Your task to perform on an android device: see tabs open on other devices in the chrome app Image 0: 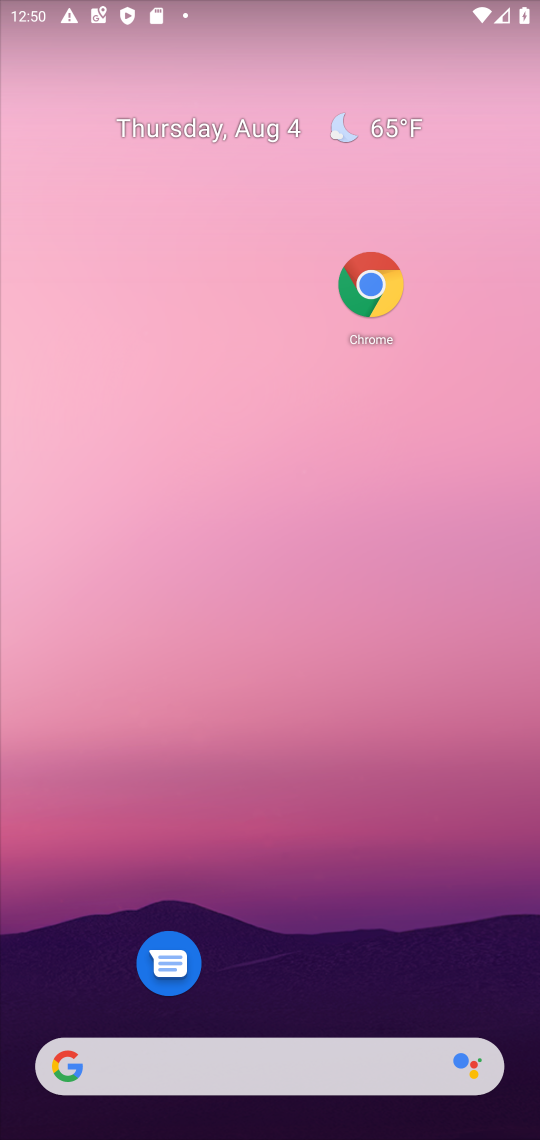
Step 0: drag from (303, 1033) to (337, 457)
Your task to perform on an android device: see tabs open on other devices in the chrome app Image 1: 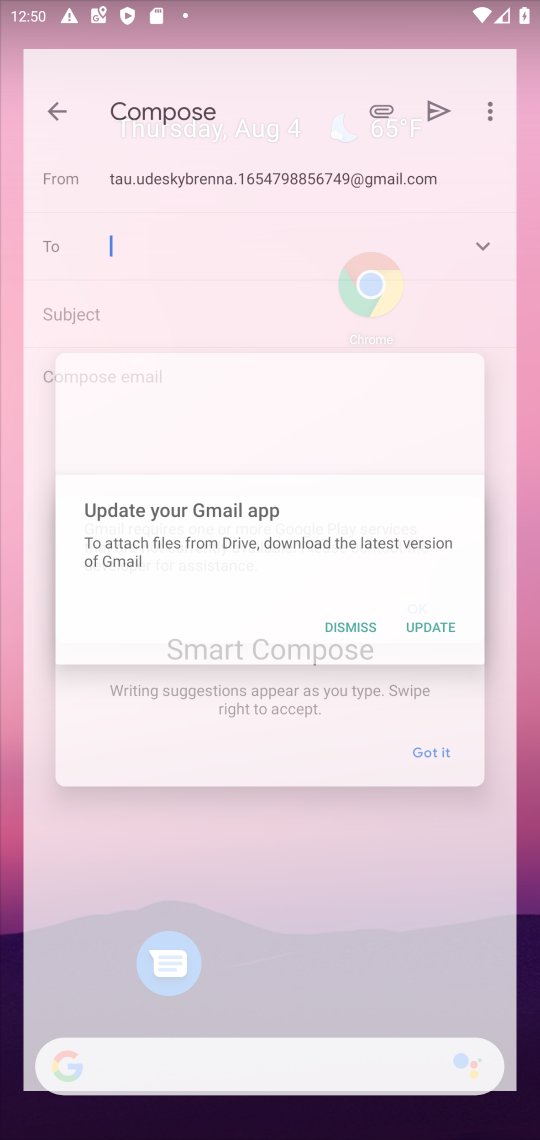
Step 1: drag from (266, 1004) to (344, 423)
Your task to perform on an android device: see tabs open on other devices in the chrome app Image 2: 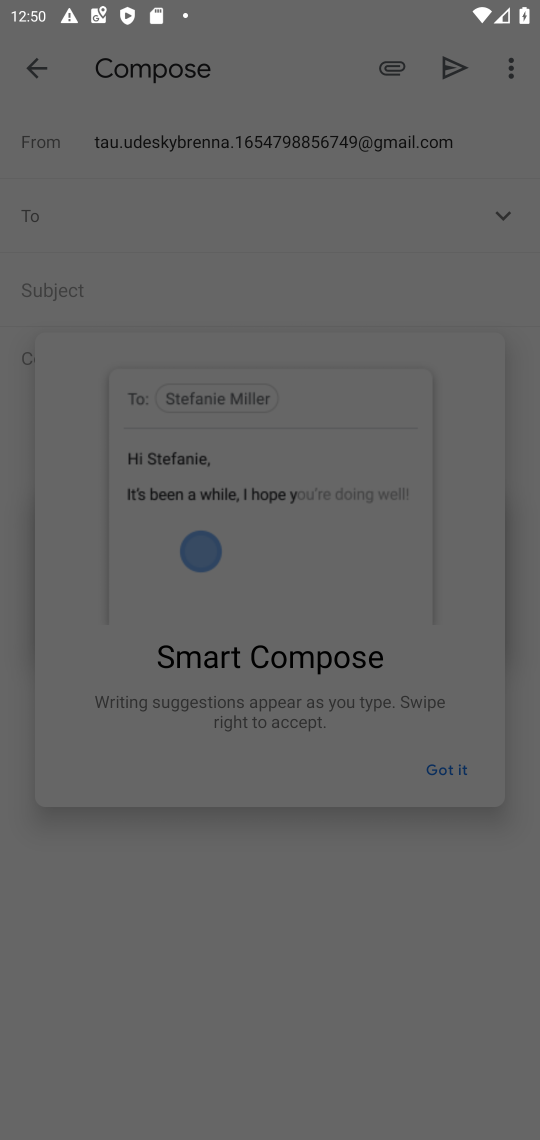
Step 2: press home button
Your task to perform on an android device: see tabs open on other devices in the chrome app Image 3: 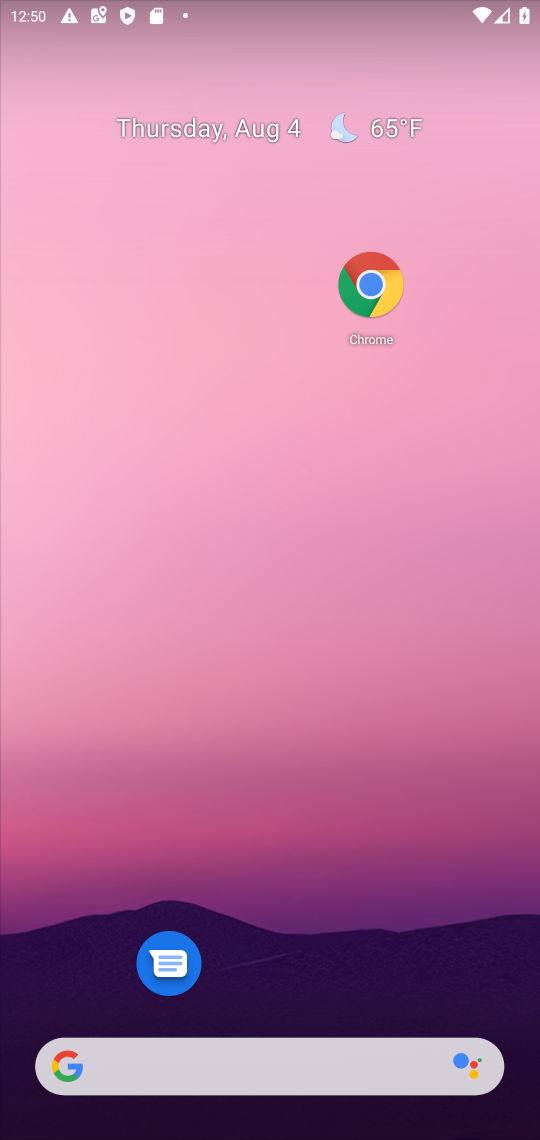
Step 3: click (373, 292)
Your task to perform on an android device: see tabs open on other devices in the chrome app Image 4: 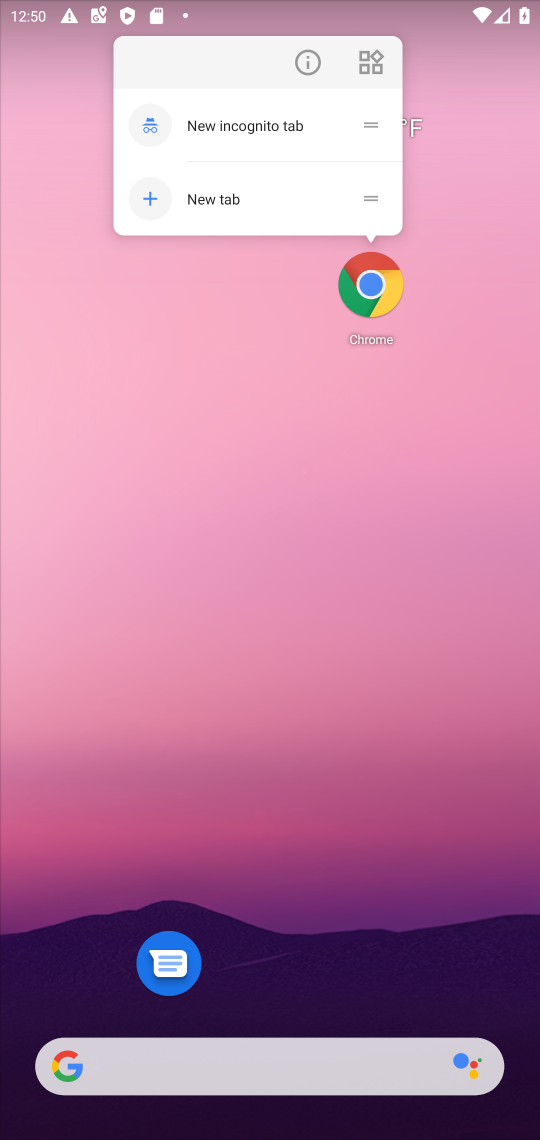
Step 4: click (385, 314)
Your task to perform on an android device: see tabs open on other devices in the chrome app Image 5: 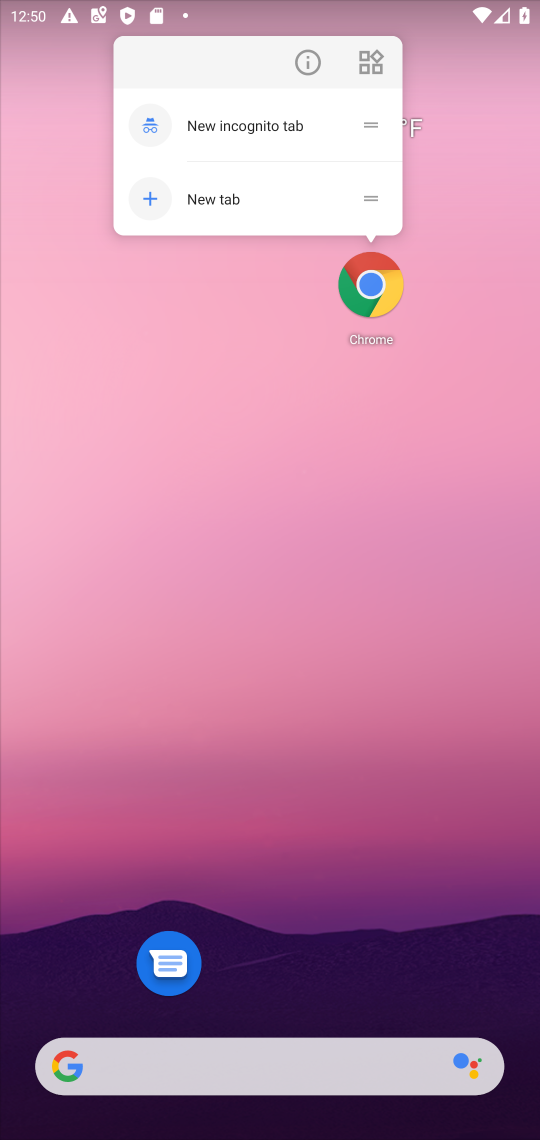
Step 5: click (385, 314)
Your task to perform on an android device: see tabs open on other devices in the chrome app Image 6: 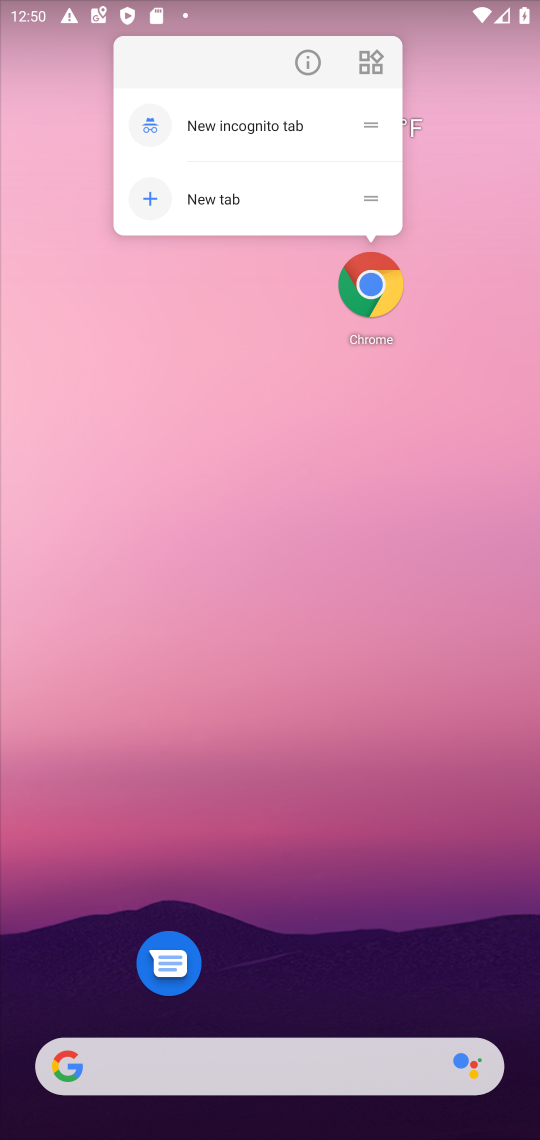
Step 6: click (309, 939)
Your task to perform on an android device: see tabs open on other devices in the chrome app Image 7: 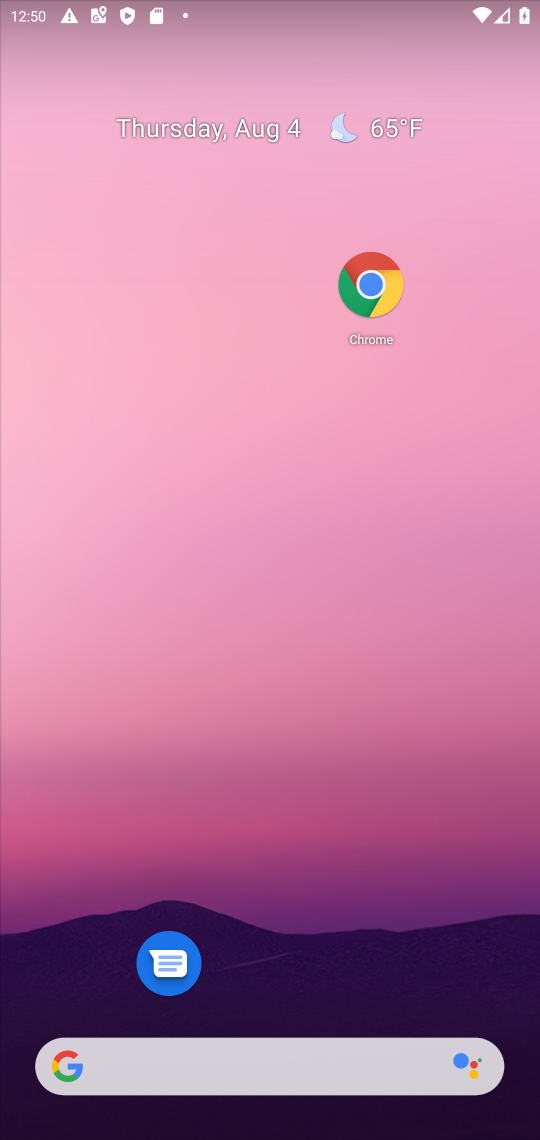
Step 7: drag from (273, 967) to (287, 431)
Your task to perform on an android device: see tabs open on other devices in the chrome app Image 8: 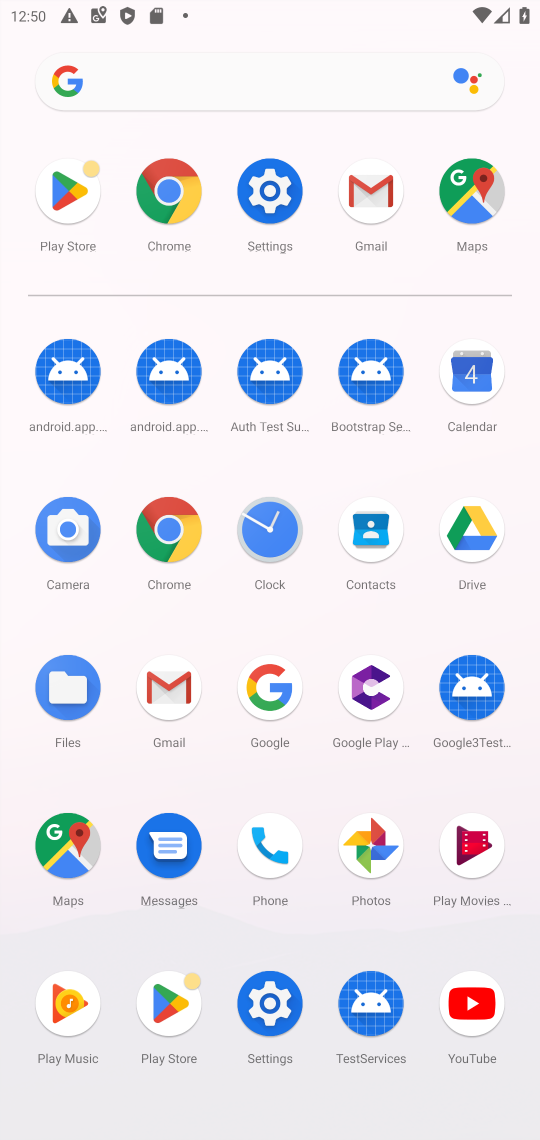
Step 8: click (187, 552)
Your task to perform on an android device: see tabs open on other devices in the chrome app Image 9: 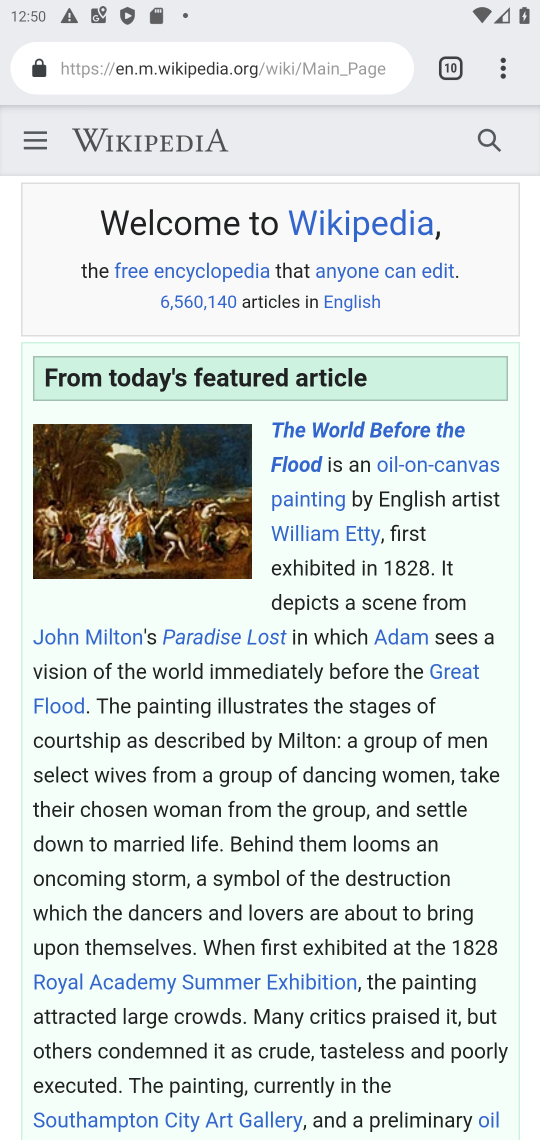
Step 9: click (501, 76)
Your task to perform on an android device: see tabs open on other devices in the chrome app Image 10: 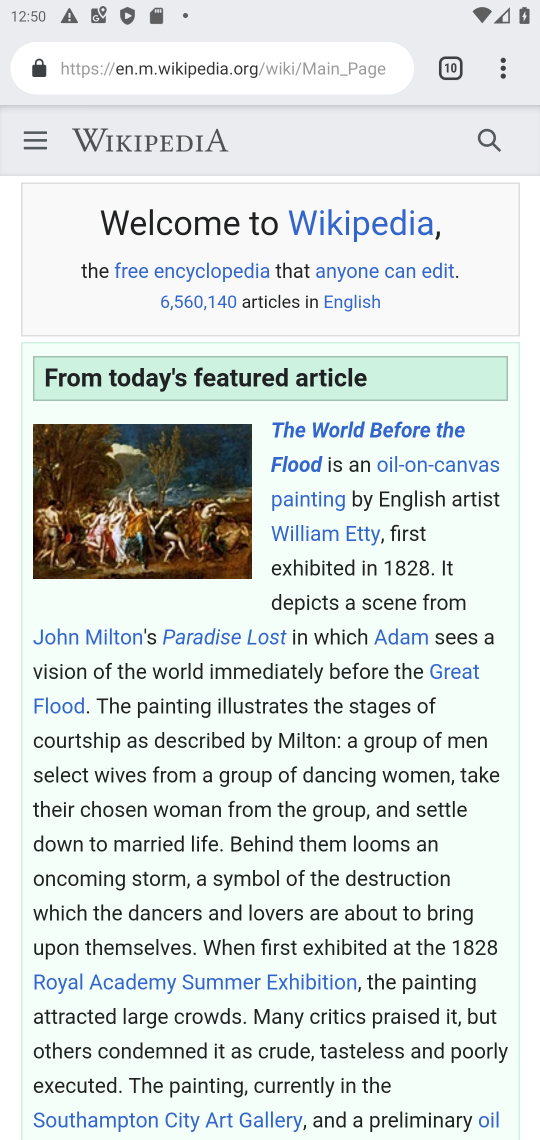
Step 10: click (519, 68)
Your task to perform on an android device: see tabs open on other devices in the chrome app Image 11: 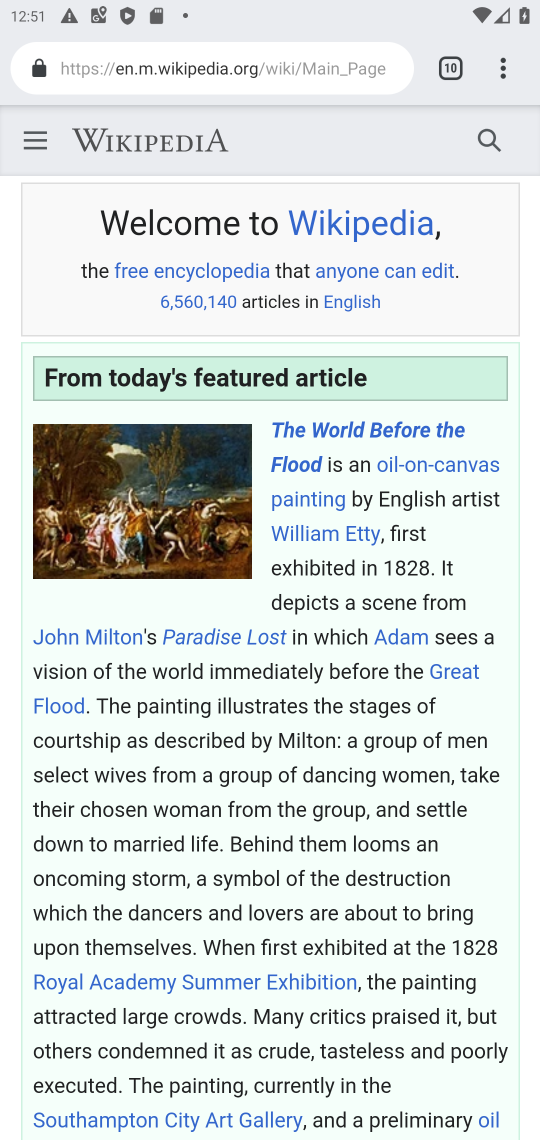
Step 11: click (519, 68)
Your task to perform on an android device: see tabs open on other devices in the chrome app Image 12: 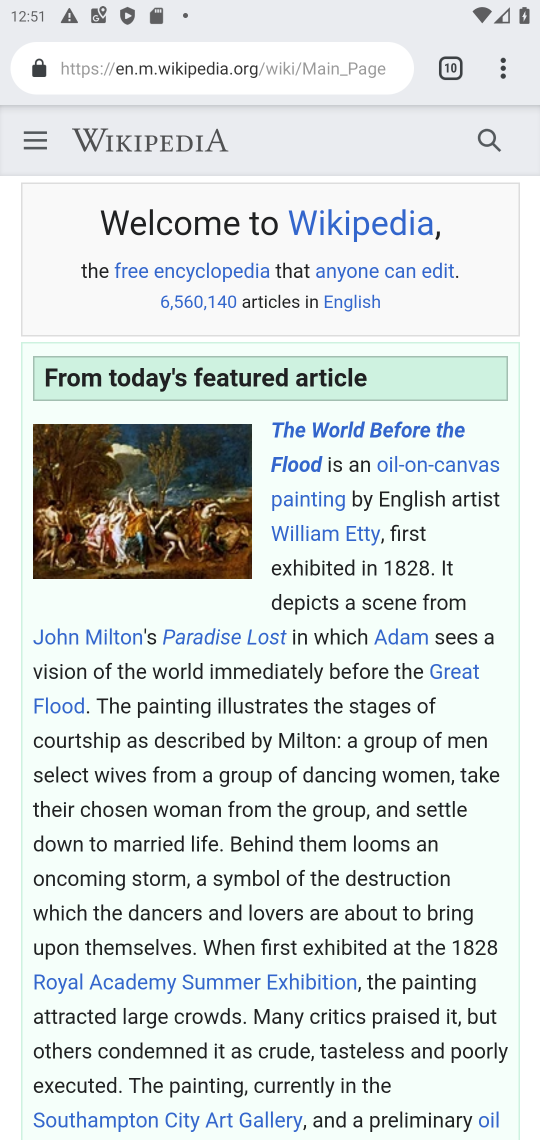
Step 12: click (519, 68)
Your task to perform on an android device: see tabs open on other devices in the chrome app Image 13: 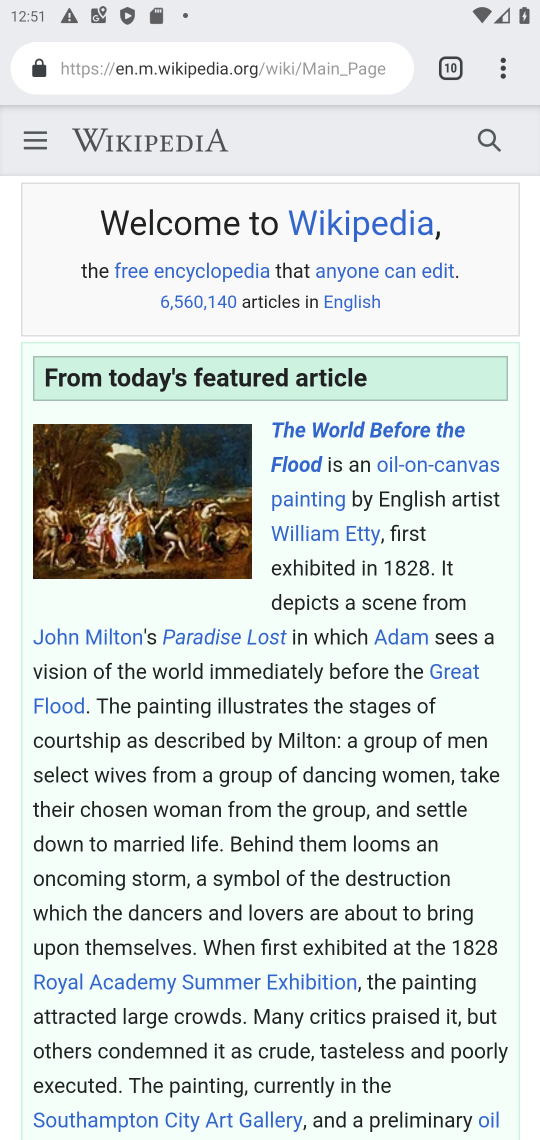
Step 13: click (513, 68)
Your task to perform on an android device: see tabs open on other devices in the chrome app Image 14: 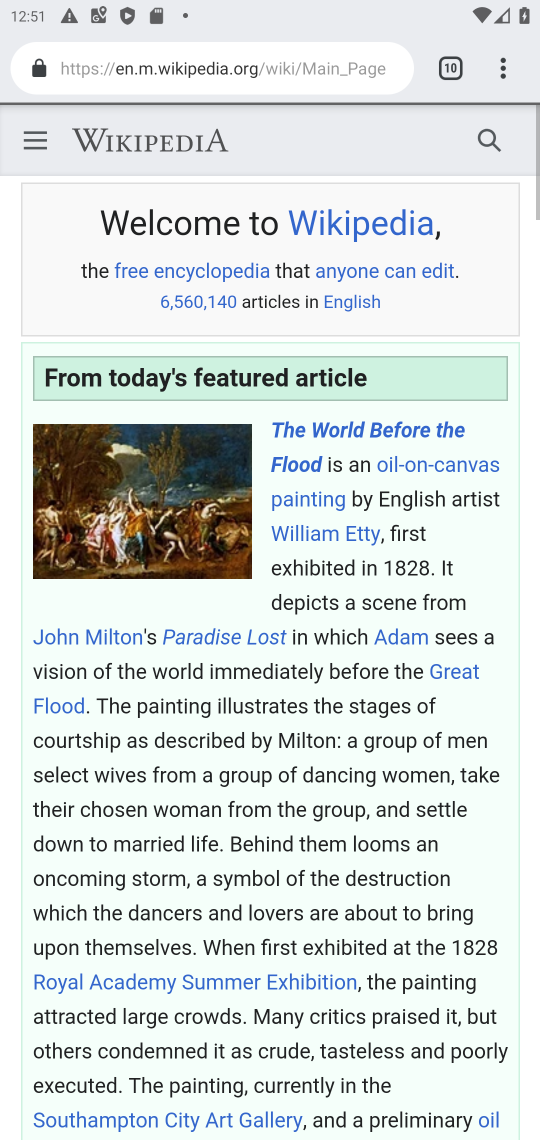
Step 14: click (513, 68)
Your task to perform on an android device: see tabs open on other devices in the chrome app Image 15: 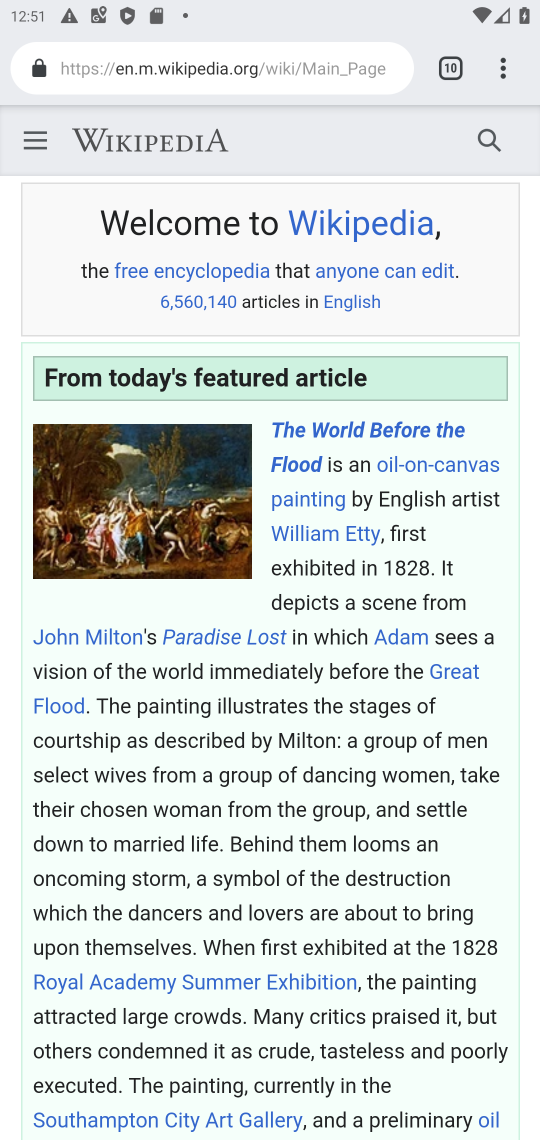
Step 15: click (510, 68)
Your task to perform on an android device: see tabs open on other devices in the chrome app Image 16: 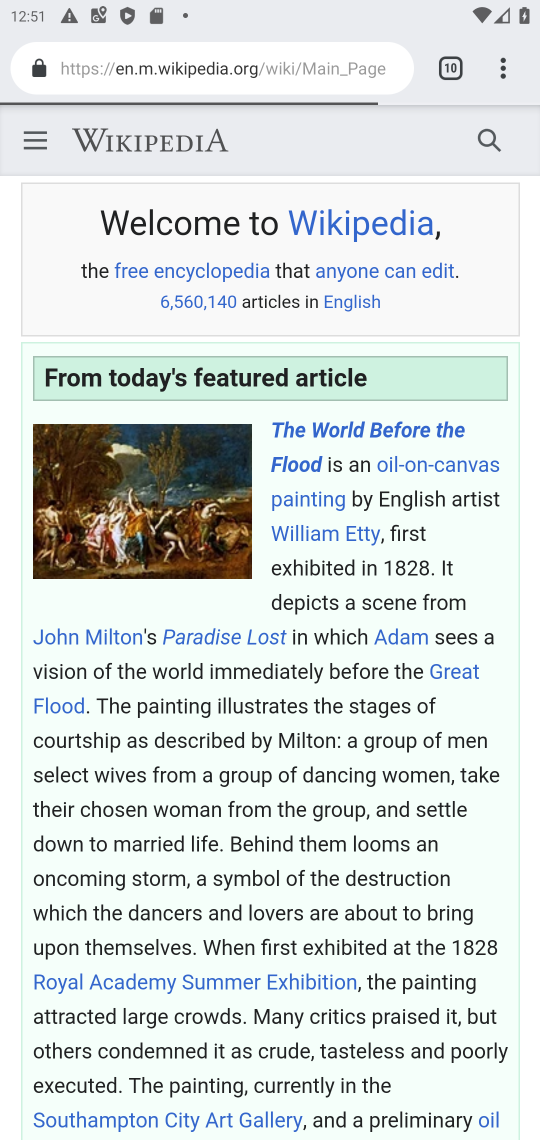
Step 16: click (510, 68)
Your task to perform on an android device: see tabs open on other devices in the chrome app Image 17: 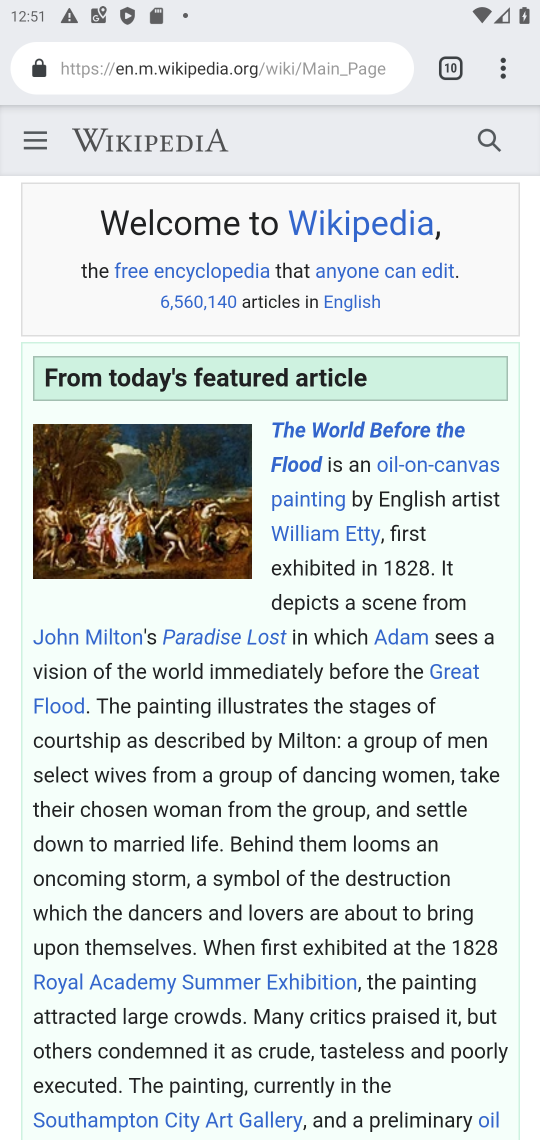
Step 17: click (489, 68)
Your task to perform on an android device: see tabs open on other devices in the chrome app Image 18: 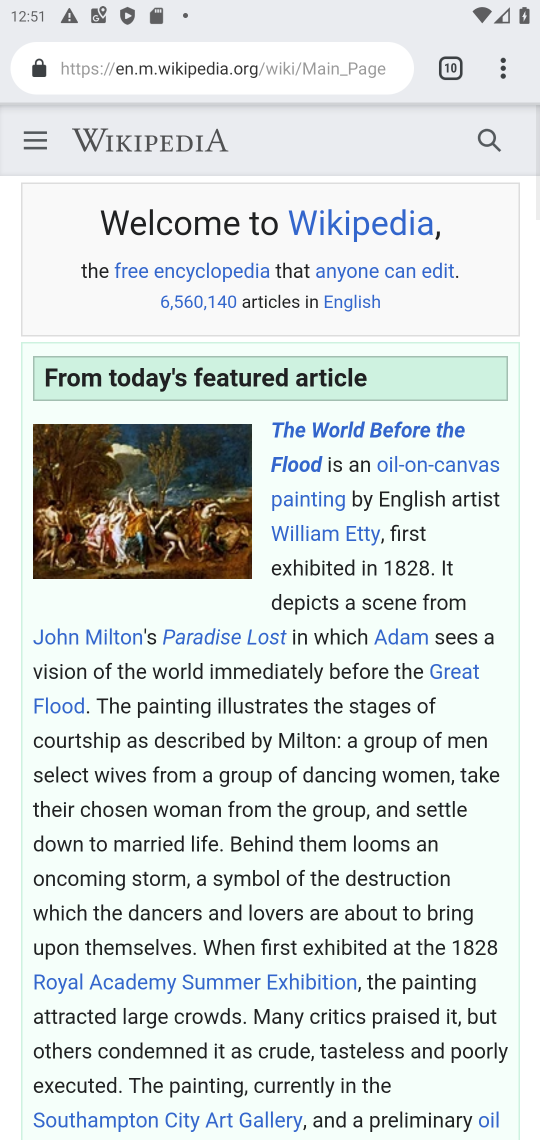
Step 18: click (486, 71)
Your task to perform on an android device: see tabs open on other devices in the chrome app Image 19: 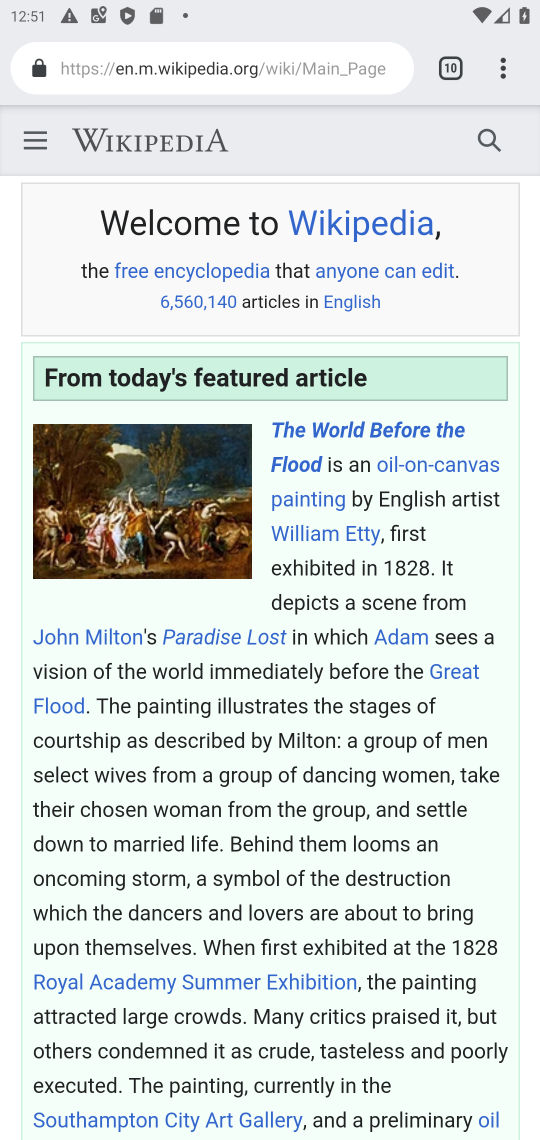
Step 19: click (506, 80)
Your task to perform on an android device: see tabs open on other devices in the chrome app Image 20: 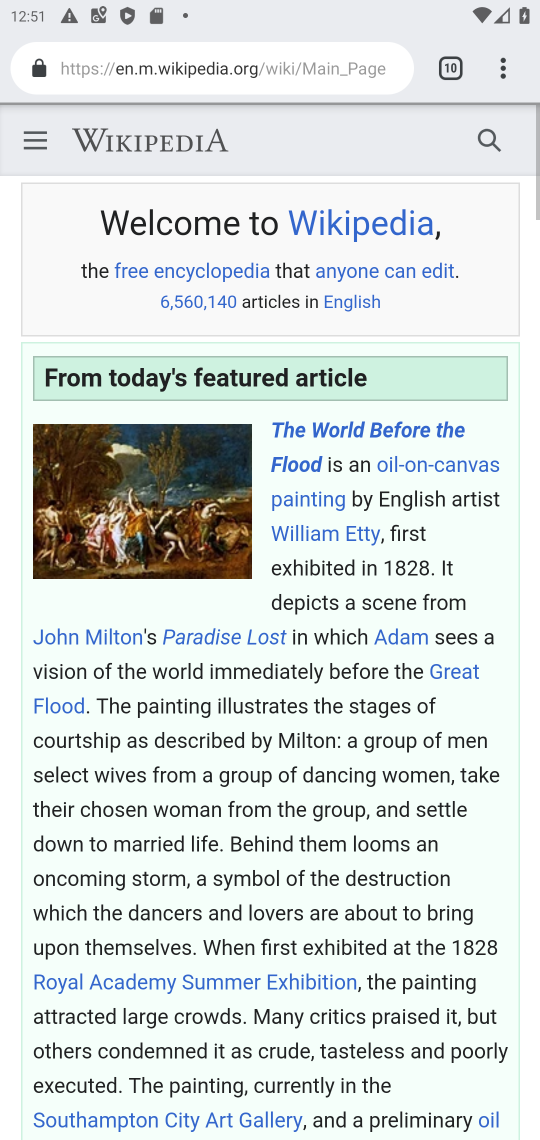
Step 20: click (506, 80)
Your task to perform on an android device: see tabs open on other devices in the chrome app Image 21: 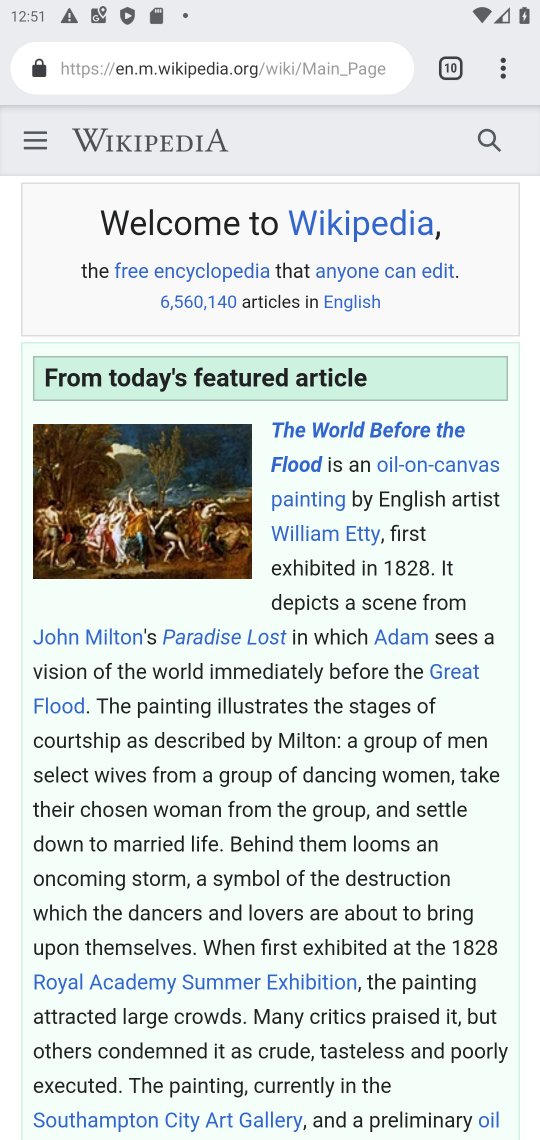
Step 21: click (506, 80)
Your task to perform on an android device: see tabs open on other devices in the chrome app Image 22: 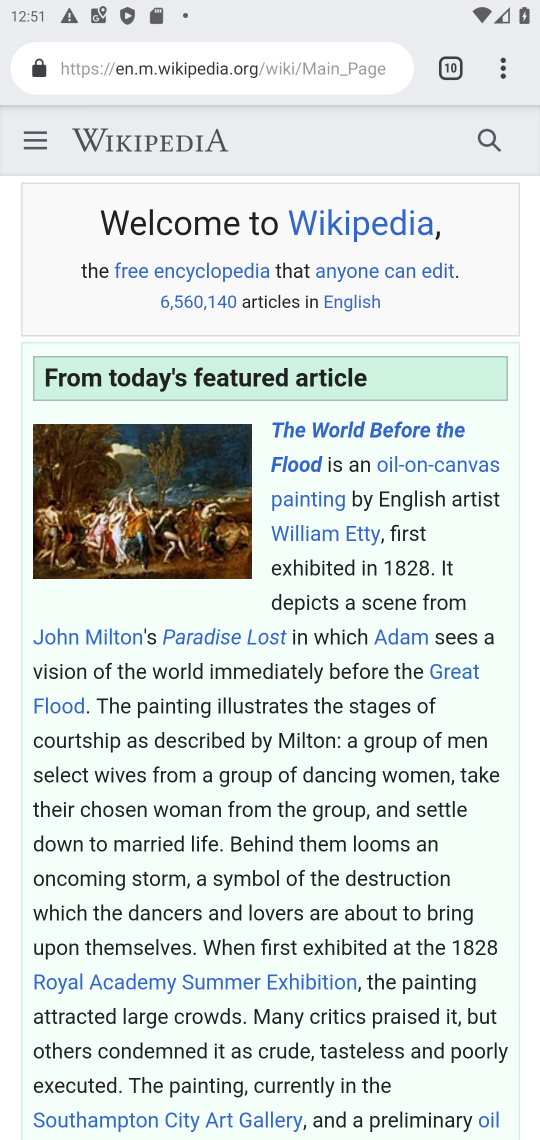
Step 22: click (497, 83)
Your task to perform on an android device: see tabs open on other devices in the chrome app Image 23: 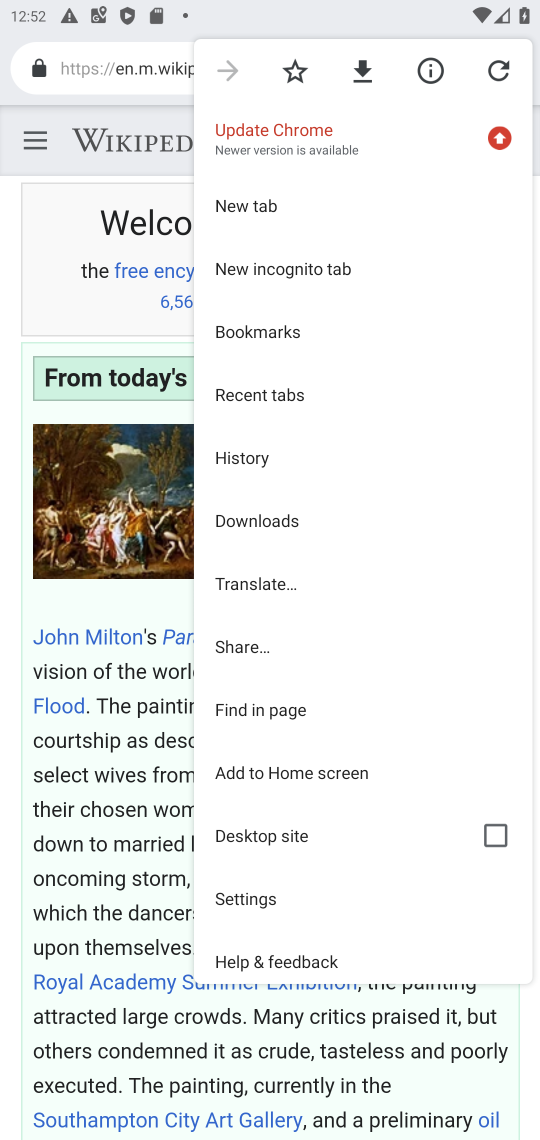
Step 23: click (248, 452)
Your task to perform on an android device: see tabs open on other devices in the chrome app Image 24: 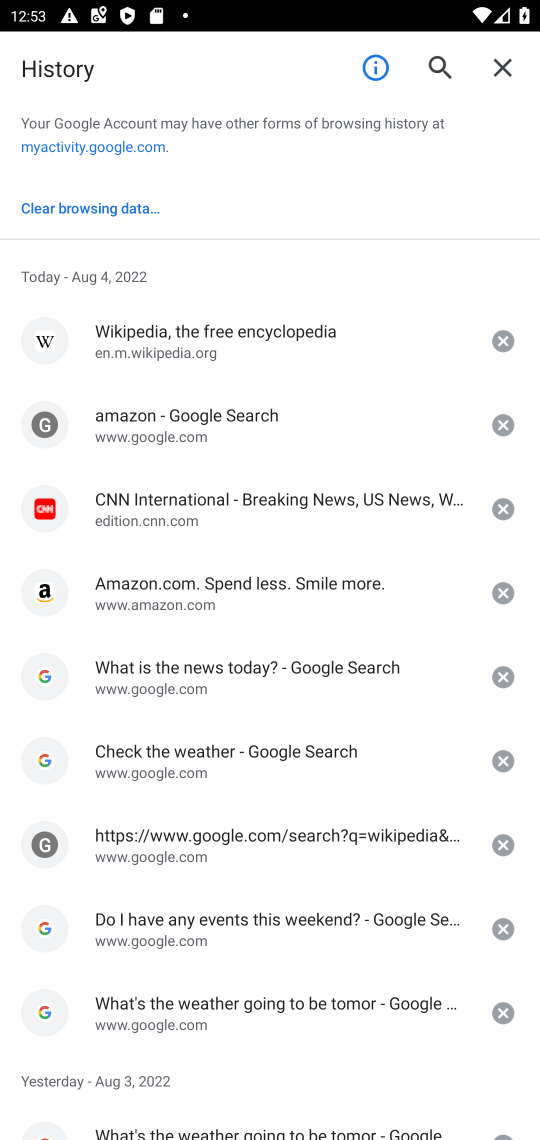
Step 24: task complete